Your task to perform on an android device: What's the weather going to be this weekend? Image 0: 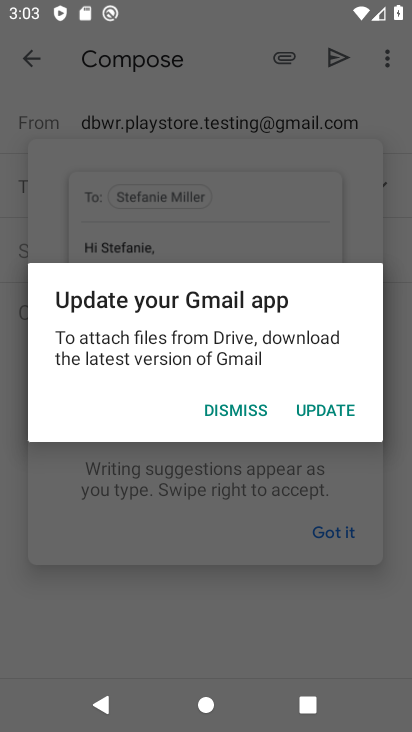
Step 0: press home button
Your task to perform on an android device: What's the weather going to be this weekend? Image 1: 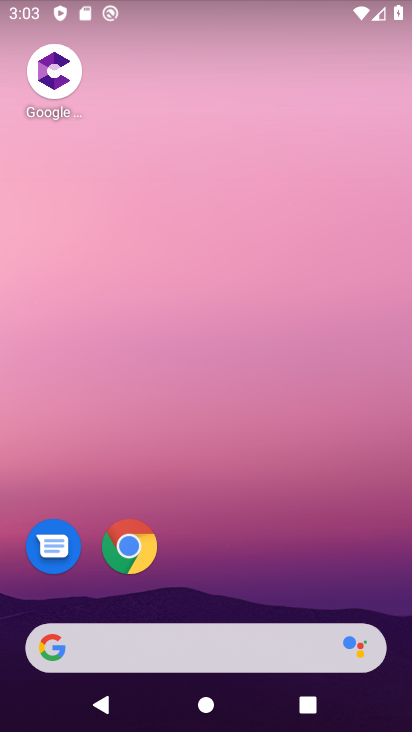
Step 1: drag from (262, 559) to (226, 38)
Your task to perform on an android device: What's the weather going to be this weekend? Image 2: 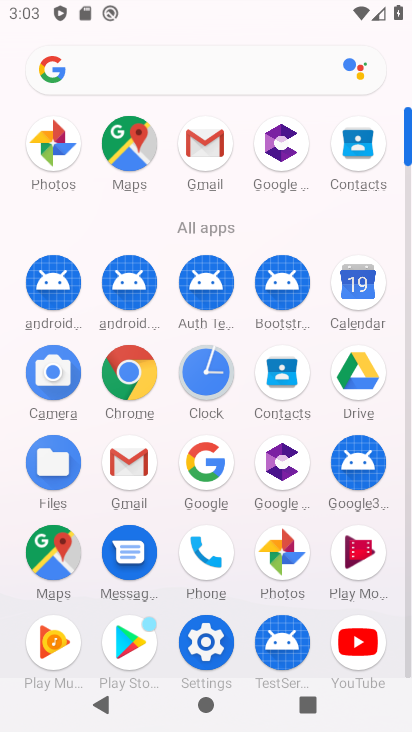
Step 2: click (127, 379)
Your task to perform on an android device: What's the weather going to be this weekend? Image 3: 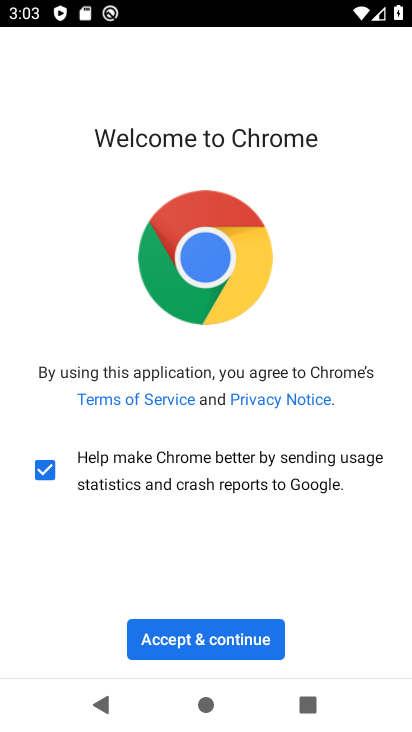
Step 3: click (147, 644)
Your task to perform on an android device: What's the weather going to be this weekend? Image 4: 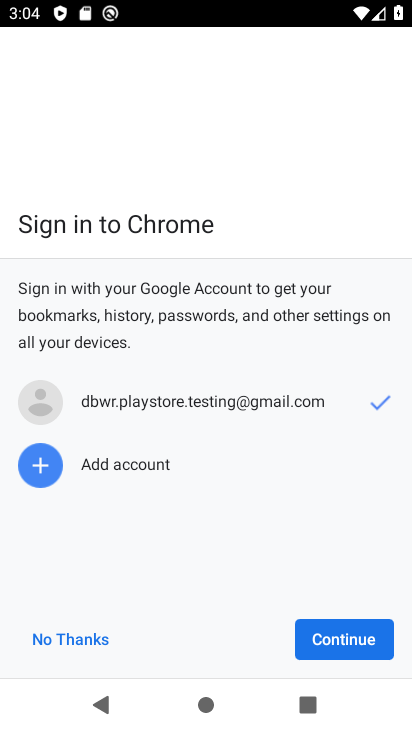
Step 4: click (373, 644)
Your task to perform on an android device: What's the weather going to be this weekend? Image 5: 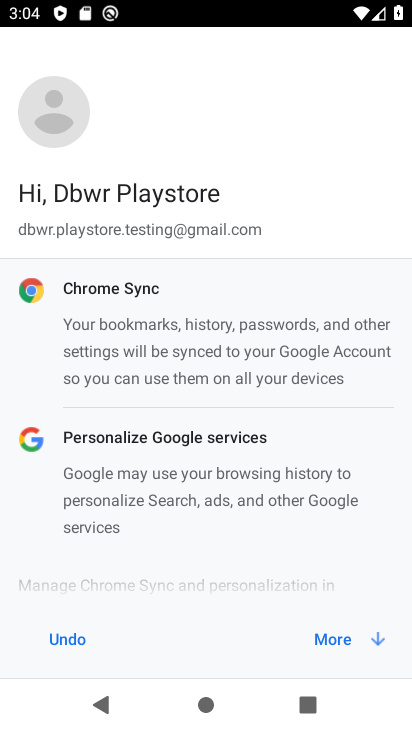
Step 5: click (373, 644)
Your task to perform on an android device: What's the weather going to be this weekend? Image 6: 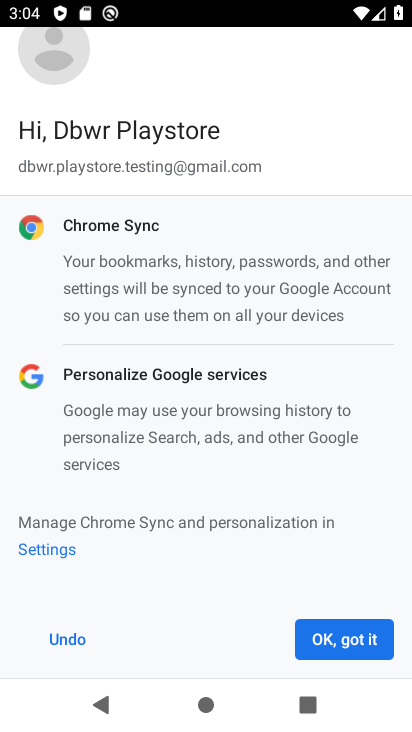
Step 6: click (373, 644)
Your task to perform on an android device: What's the weather going to be this weekend? Image 7: 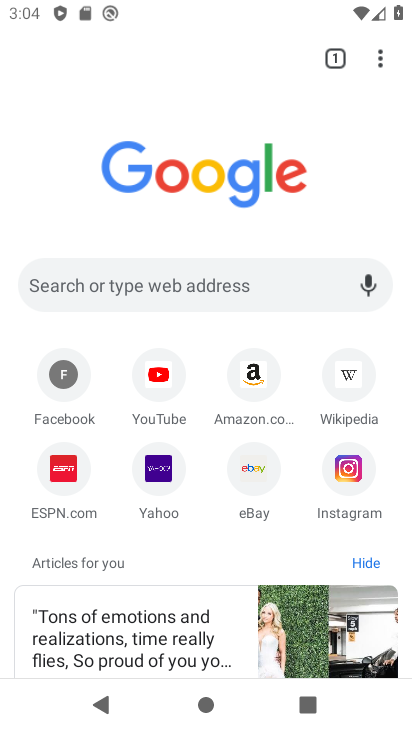
Step 7: drag from (0, 633) to (396, 604)
Your task to perform on an android device: What's the weather going to be this weekend? Image 8: 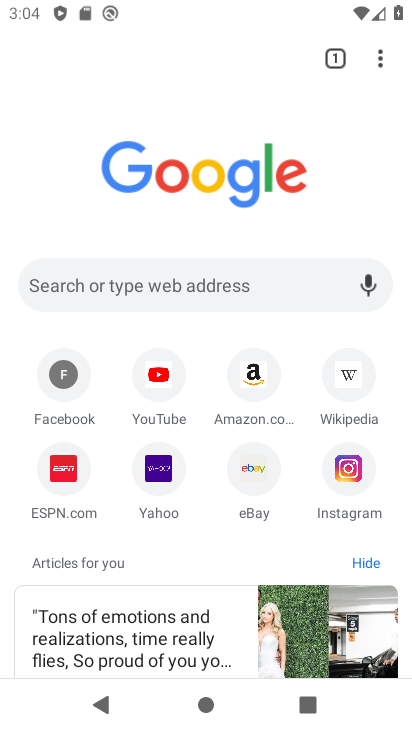
Step 8: click (225, 278)
Your task to perform on an android device: What's the weather going to be this weekend? Image 9: 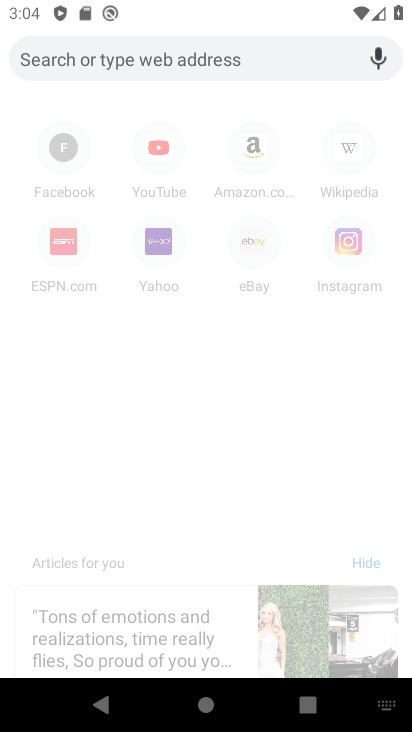
Step 9: type "What's the weather going to be this weekend?"
Your task to perform on an android device: What's the weather going to be this weekend? Image 10: 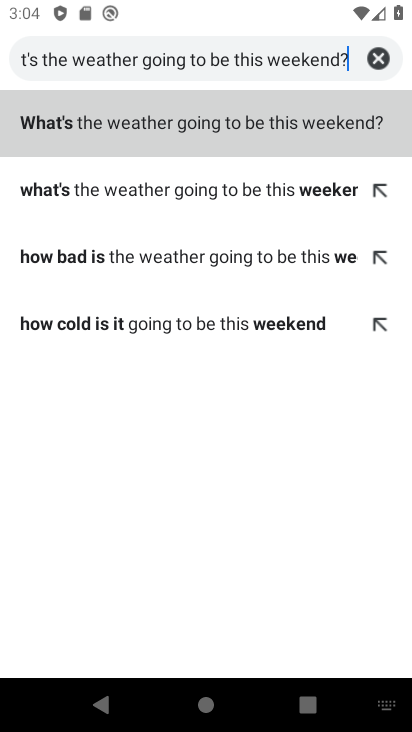
Step 10: click (331, 123)
Your task to perform on an android device: What's the weather going to be this weekend? Image 11: 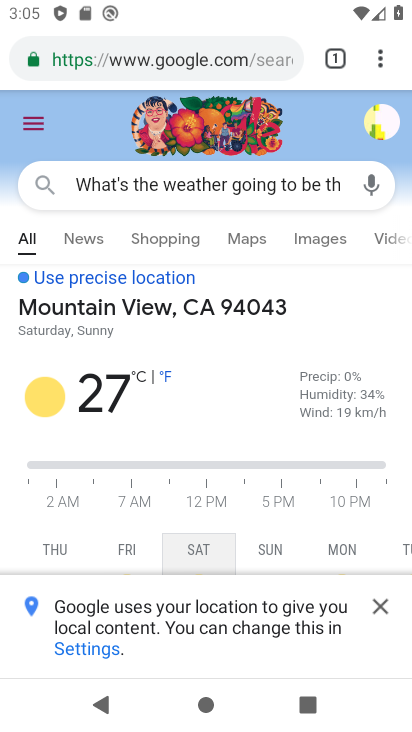
Step 11: click (383, 604)
Your task to perform on an android device: What's the weather going to be this weekend? Image 12: 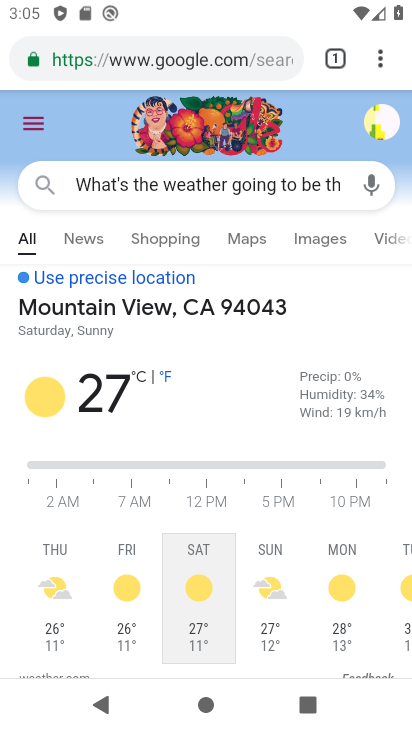
Step 12: task complete